Your task to perform on an android device: turn on showing notifications on the lock screen Image 0: 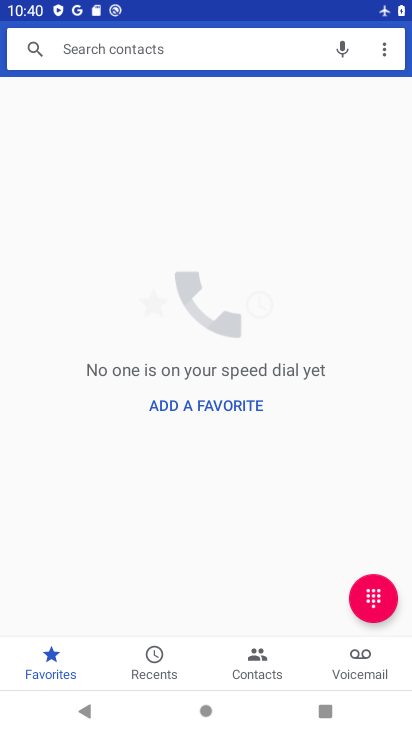
Step 0: press home button
Your task to perform on an android device: turn on showing notifications on the lock screen Image 1: 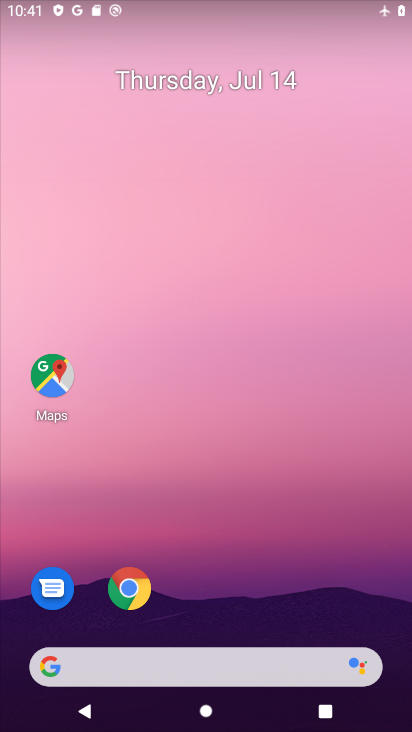
Step 1: drag from (318, 597) to (294, 6)
Your task to perform on an android device: turn on showing notifications on the lock screen Image 2: 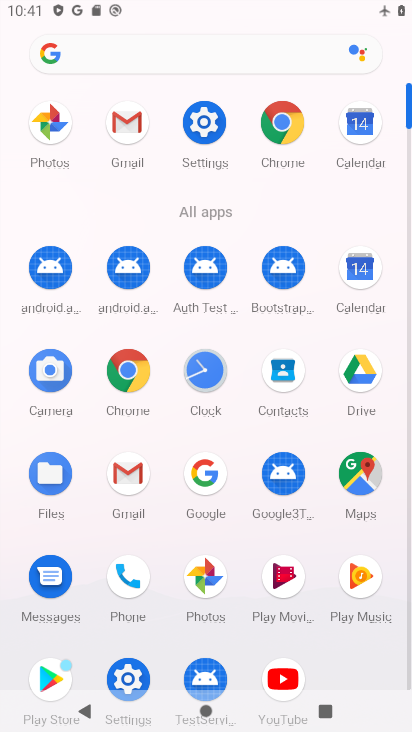
Step 2: click (137, 669)
Your task to perform on an android device: turn on showing notifications on the lock screen Image 3: 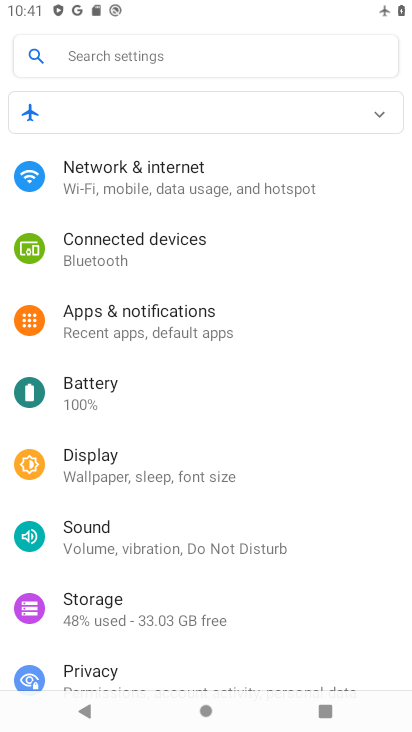
Step 3: click (135, 330)
Your task to perform on an android device: turn on showing notifications on the lock screen Image 4: 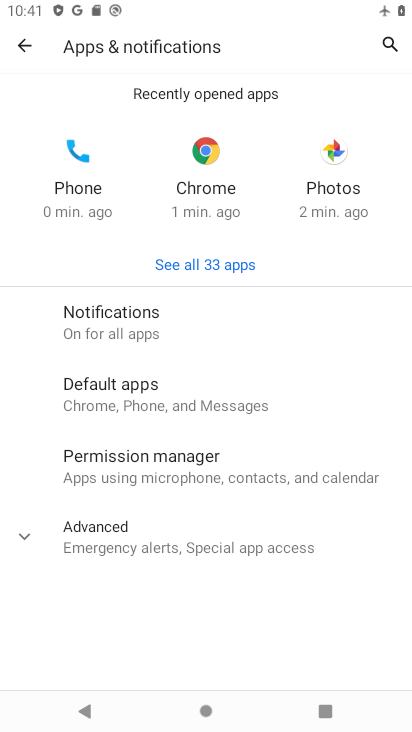
Step 4: click (135, 330)
Your task to perform on an android device: turn on showing notifications on the lock screen Image 5: 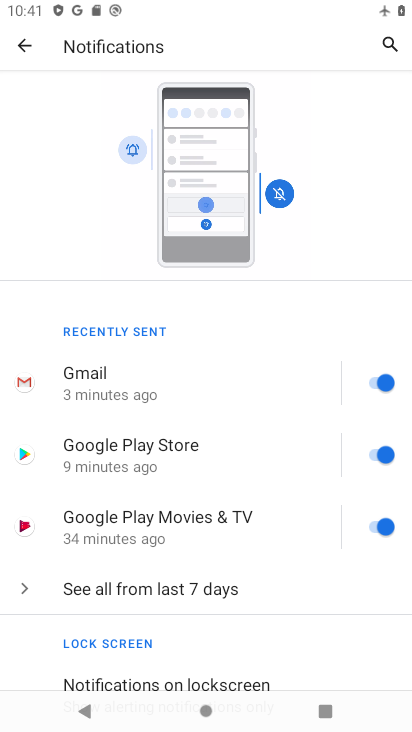
Step 5: click (127, 683)
Your task to perform on an android device: turn on showing notifications on the lock screen Image 6: 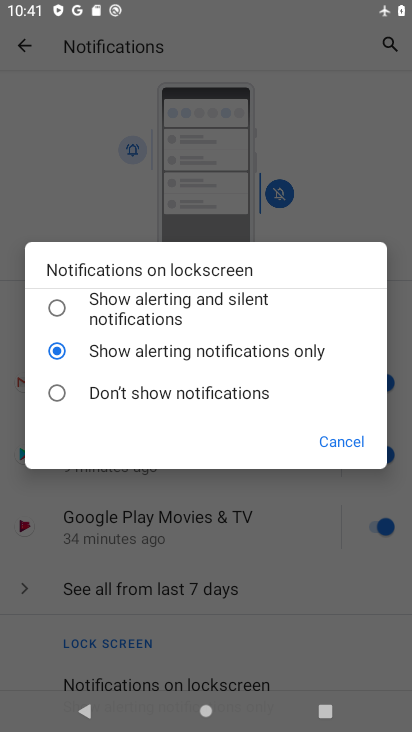
Step 6: click (82, 312)
Your task to perform on an android device: turn on showing notifications on the lock screen Image 7: 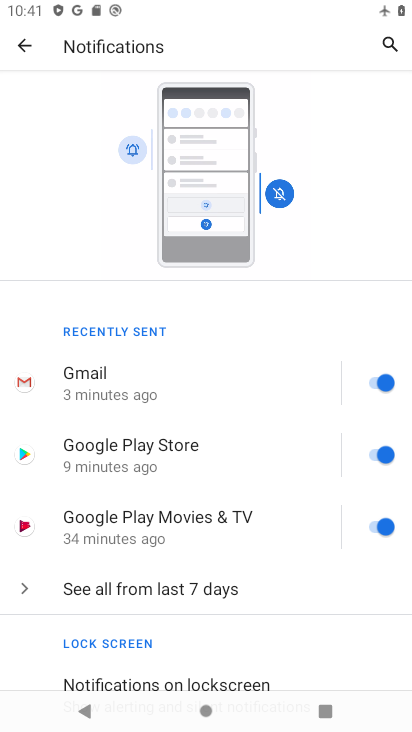
Step 7: task complete